Your task to perform on an android device: Open the Play Movies app and select the watchlist tab. Image 0: 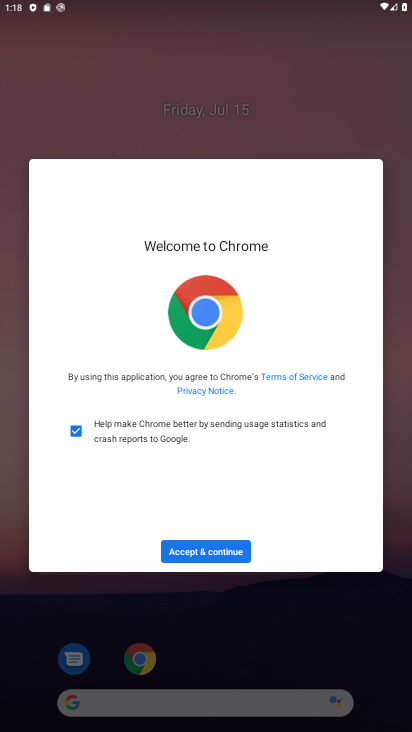
Step 0: press home button
Your task to perform on an android device: Open the Play Movies app and select the watchlist tab. Image 1: 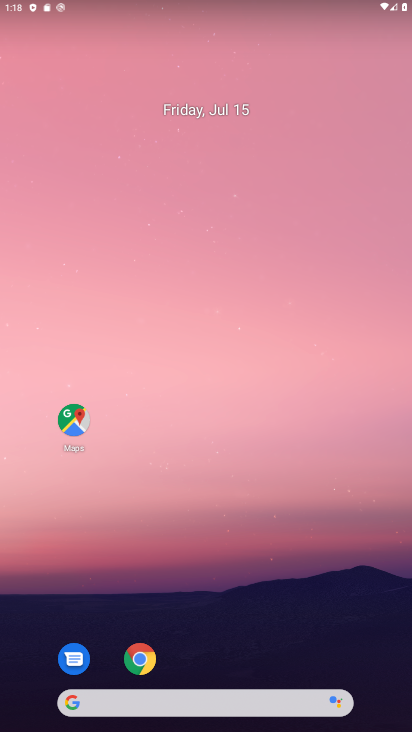
Step 1: drag from (217, 647) to (387, 80)
Your task to perform on an android device: Open the Play Movies app and select the watchlist tab. Image 2: 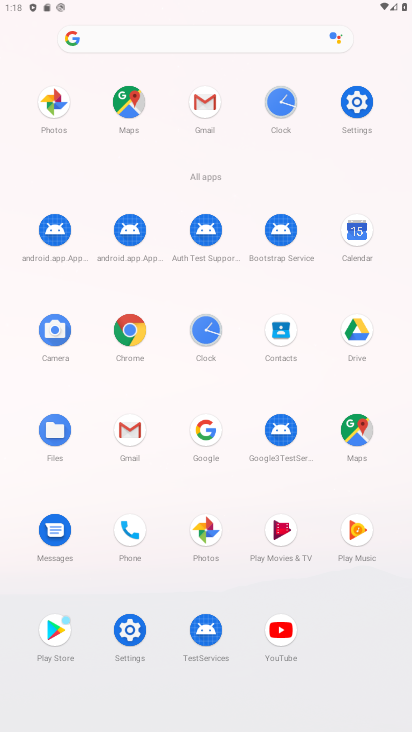
Step 2: click (280, 540)
Your task to perform on an android device: Open the Play Movies app and select the watchlist tab. Image 3: 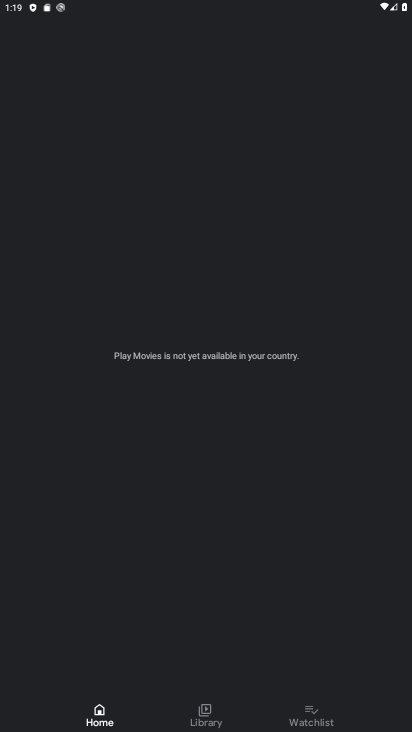
Step 3: click (326, 720)
Your task to perform on an android device: Open the Play Movies app and select the watchlist tab. Image 4: 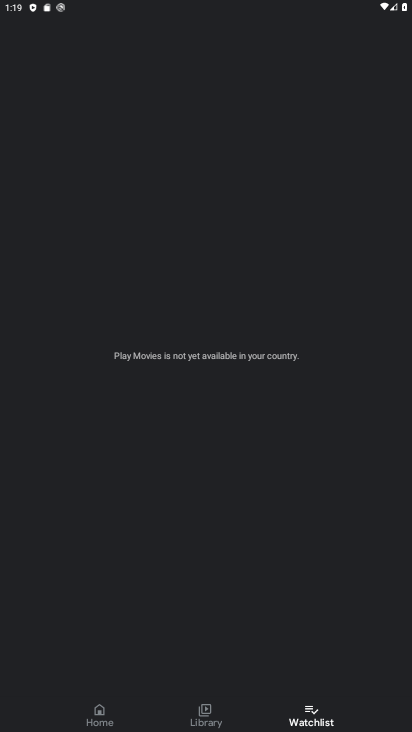
Step 4: task complete